Your task to perform on an android device: Open calendar and show me the third week of next month Image 0: 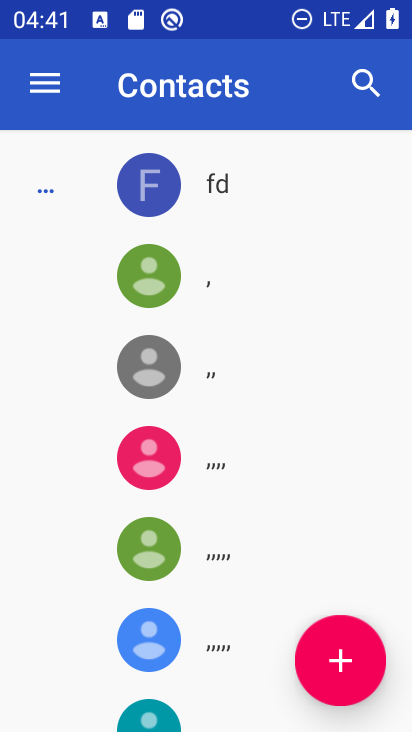
Step 0: press home button
Your task to perform on an android device: Open calendar and show me the third week of next month Image 1: 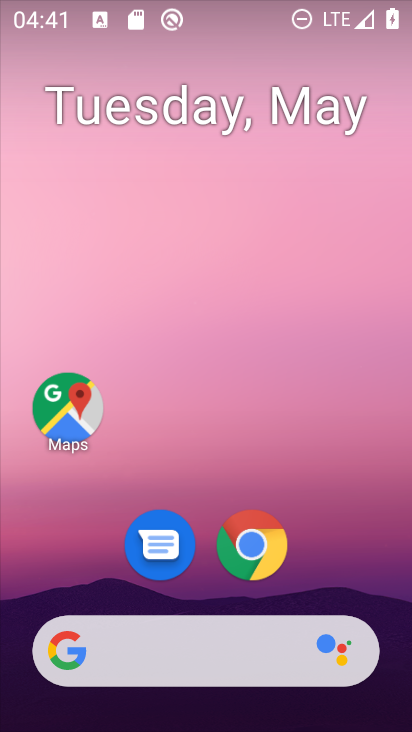
Step 1: drag from (393, 615) to (316, 52)
Your task to perform on an android device: Open calendar and show me the third week of next month Image 2: 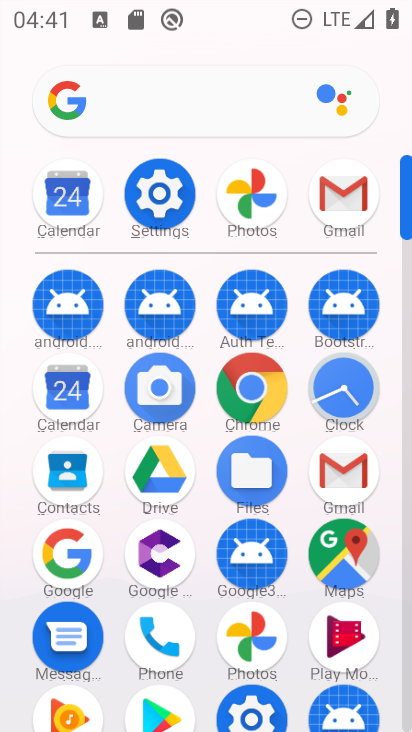
Step 2: click (66, 386)
Your task to perform on an android device: Open calendar and show me the third week of next month Image 3: 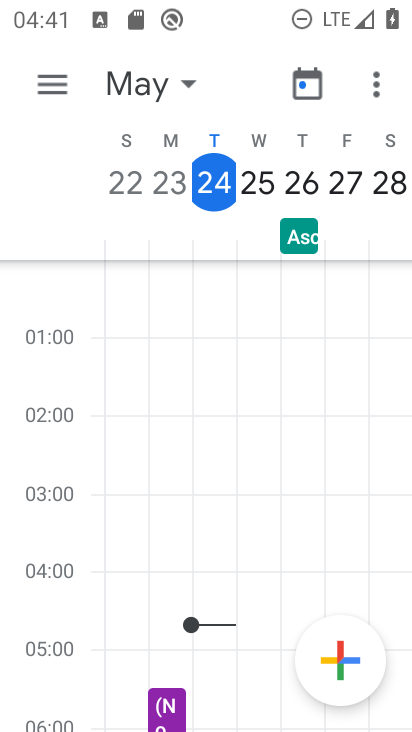
Step 3: click (54, 91)
Your task to perform on an android device: Open calendar and show me the third week of next month Image 4: 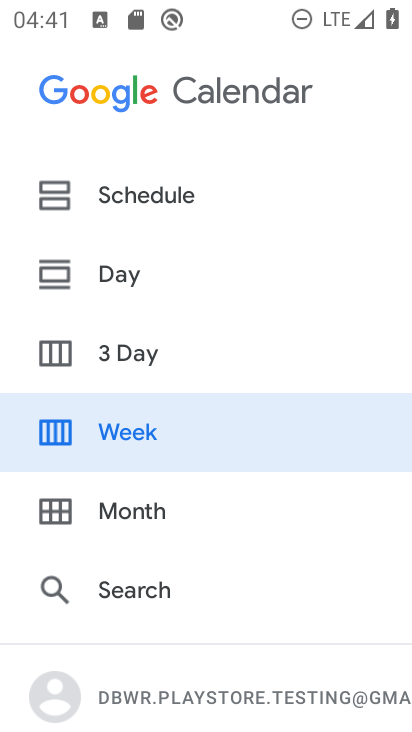
Step 4: click (140, 429)
Your task to perform on an android device: Open calendar and show me the third week of next month Image 5: 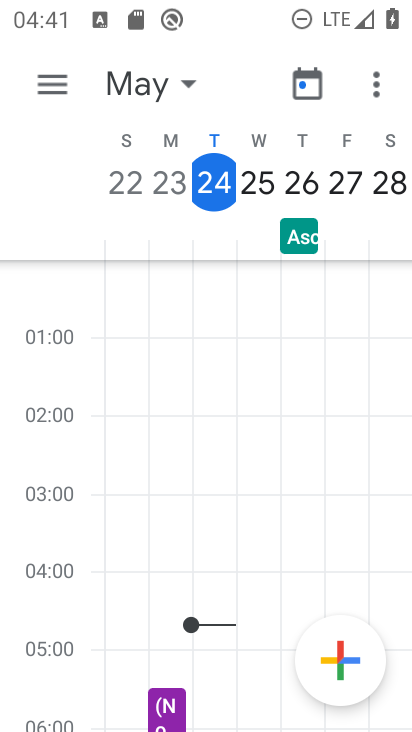
Step 5: click (187, 85)
Your task to perform on an android device: Open calendar and show me the third week of next month Image 6: 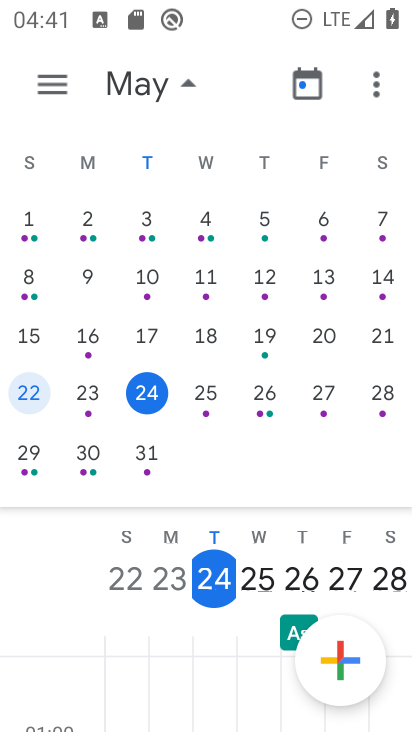
Step 6: drag from (364, 324) to (34, 262)
Your task to perform on an android device: Open calendar and show me the third week of next month Image 7: 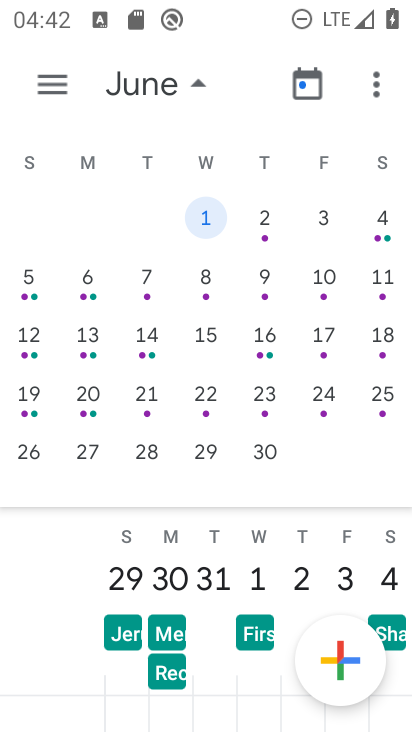
Step 7: click (27, 398)
Your task to perform on an android device: Open calendar and show me the third week of next month Image 8: 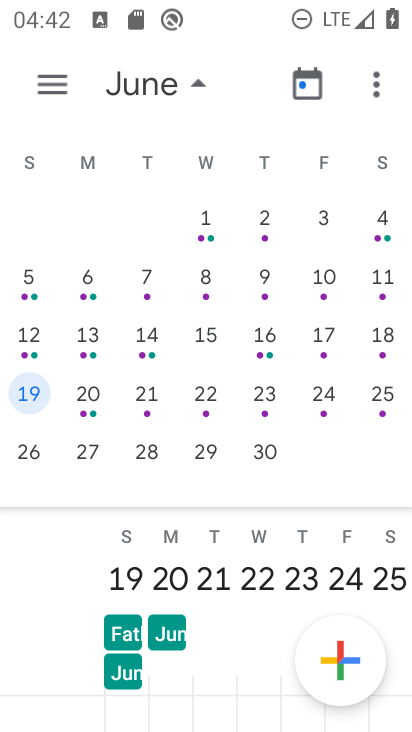
Step 8: task complete